Your task to perform on an android device: Is it going to rain this weekend? Image 0: 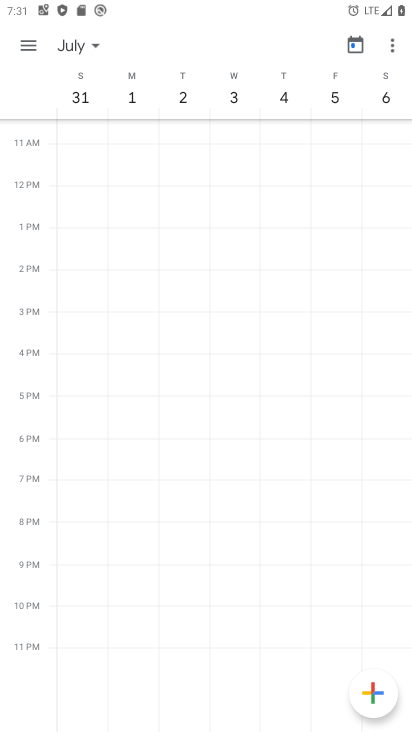
Step 0: press home button
Your task to perform on an android device: Is it going to rain this weekend? Image 1: 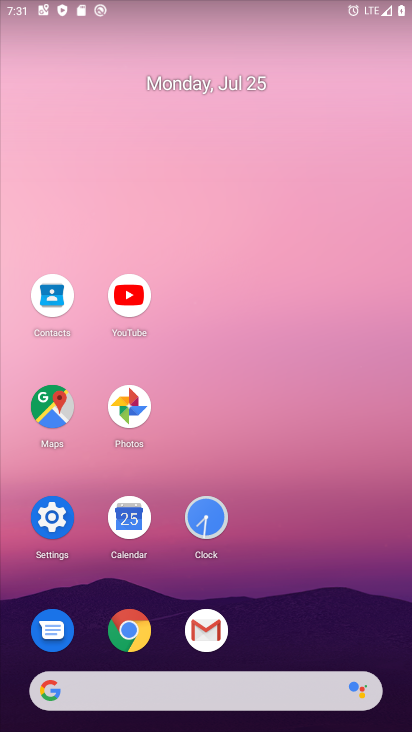
Step 1: click (217, 684)
Your task to perform on an android device: Is it going to rain this weekend? Image 2: 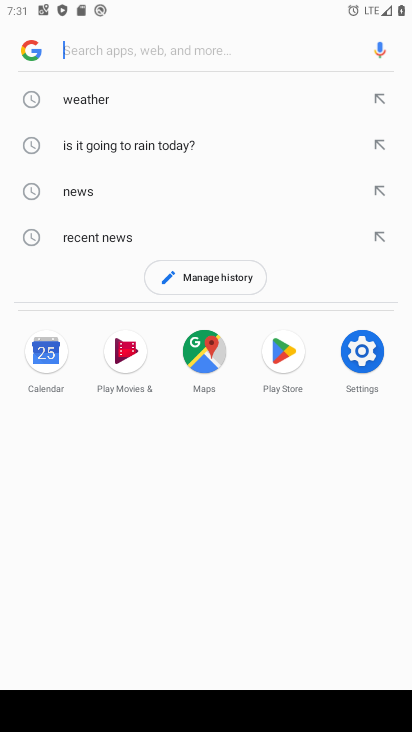
Step 2: click (71, 95)
Your task to perform on an android device: Is it going to rain this weekend? Image 3: 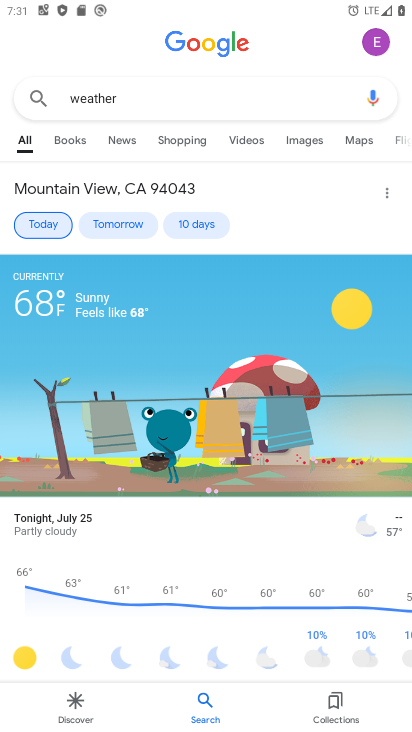
Step 3: click (192, 220)
Your task to perform on an android device: Is it going to rain this weekend? Image 4: 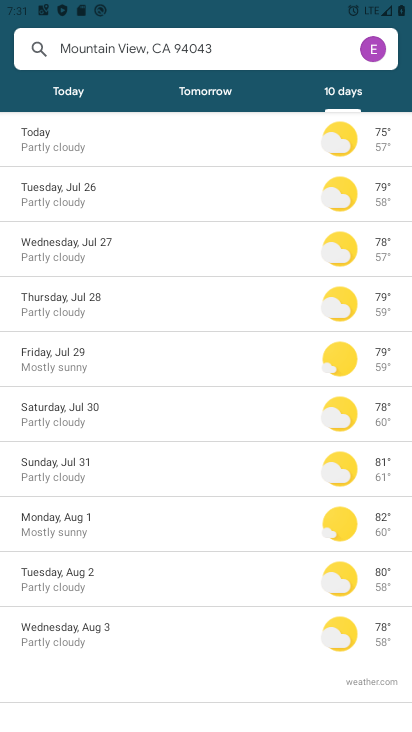
Step 4: task complete